Your task to perform on an android device: Open Android settings Image 0: 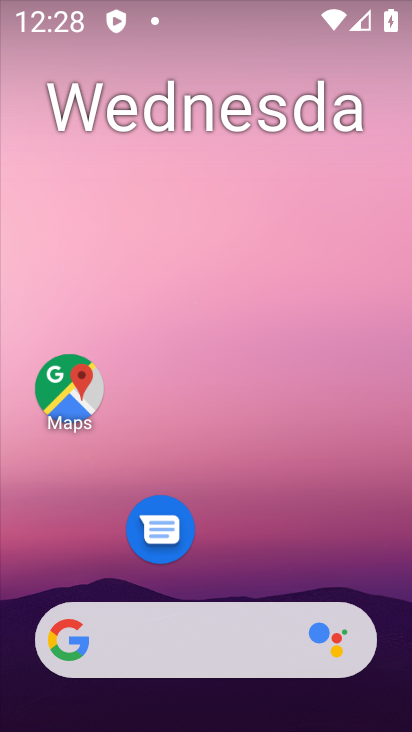
Step 0: drag from (244, 583) to (364, 72)
Your task to perform on an android device: Open Android settings Image 1: 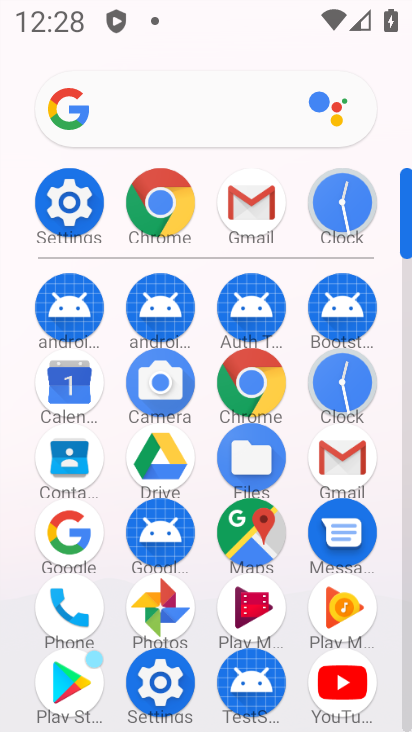
Step 1: click (60, 202)
Your task to perform on an android device: Open Android settings Image 2: 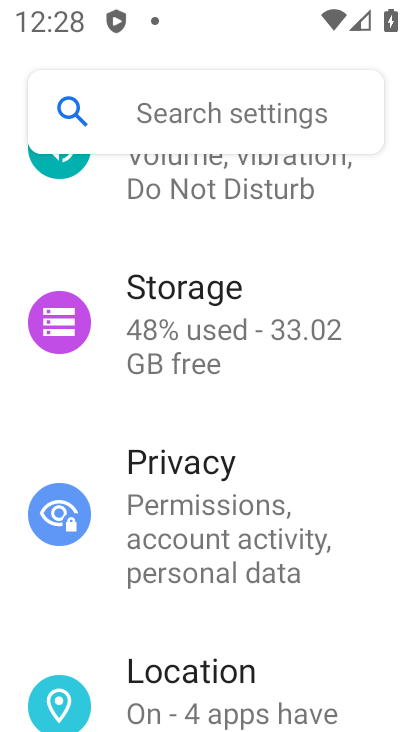
Step 2: task complete